Your task to perform on an android device: Toggle the flashlight Image 0: 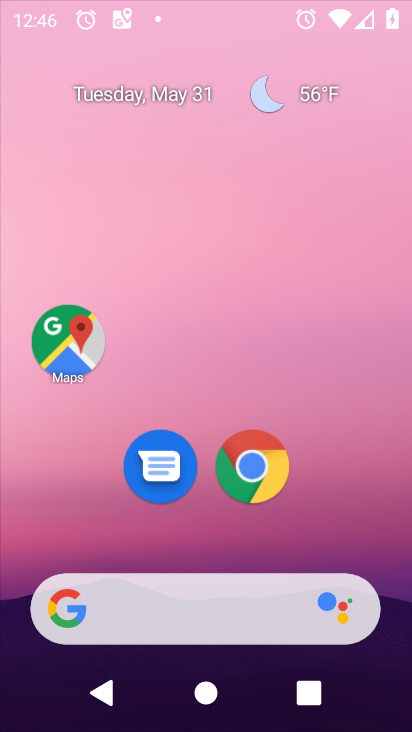
Step 0: drag from (218, 388) to (200, 90)
Your task to perform on an android device: Toggle the flashlight Image 1: 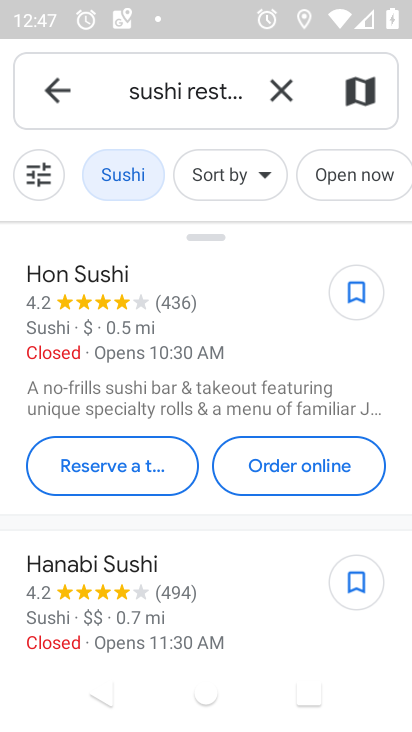
Step 1: task complete